Your task to perform on an android device: Turn on the flashlight Image 0: 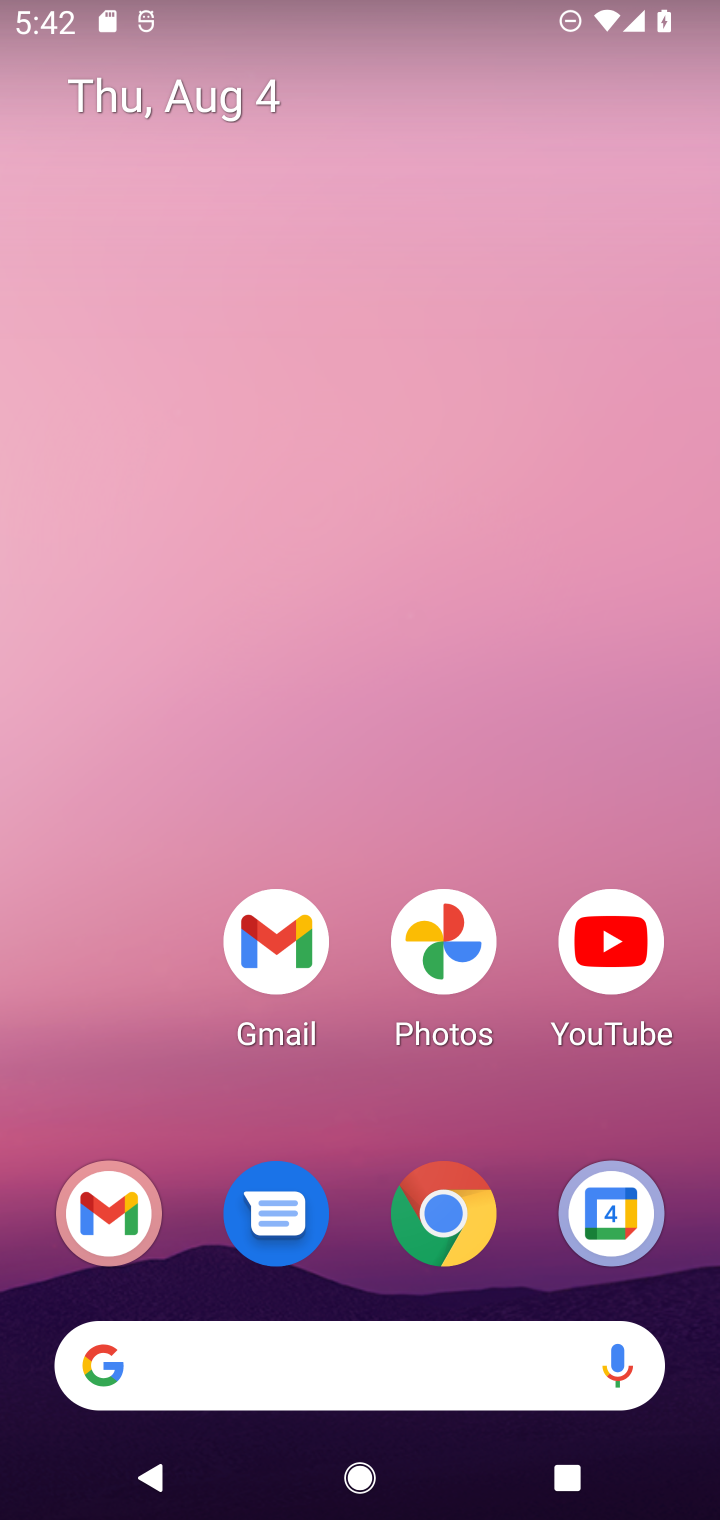
Step 0: drag from (380, 1) to (359, 739)
Your task to perform on an android device: Turn on the flashlight Image 1: 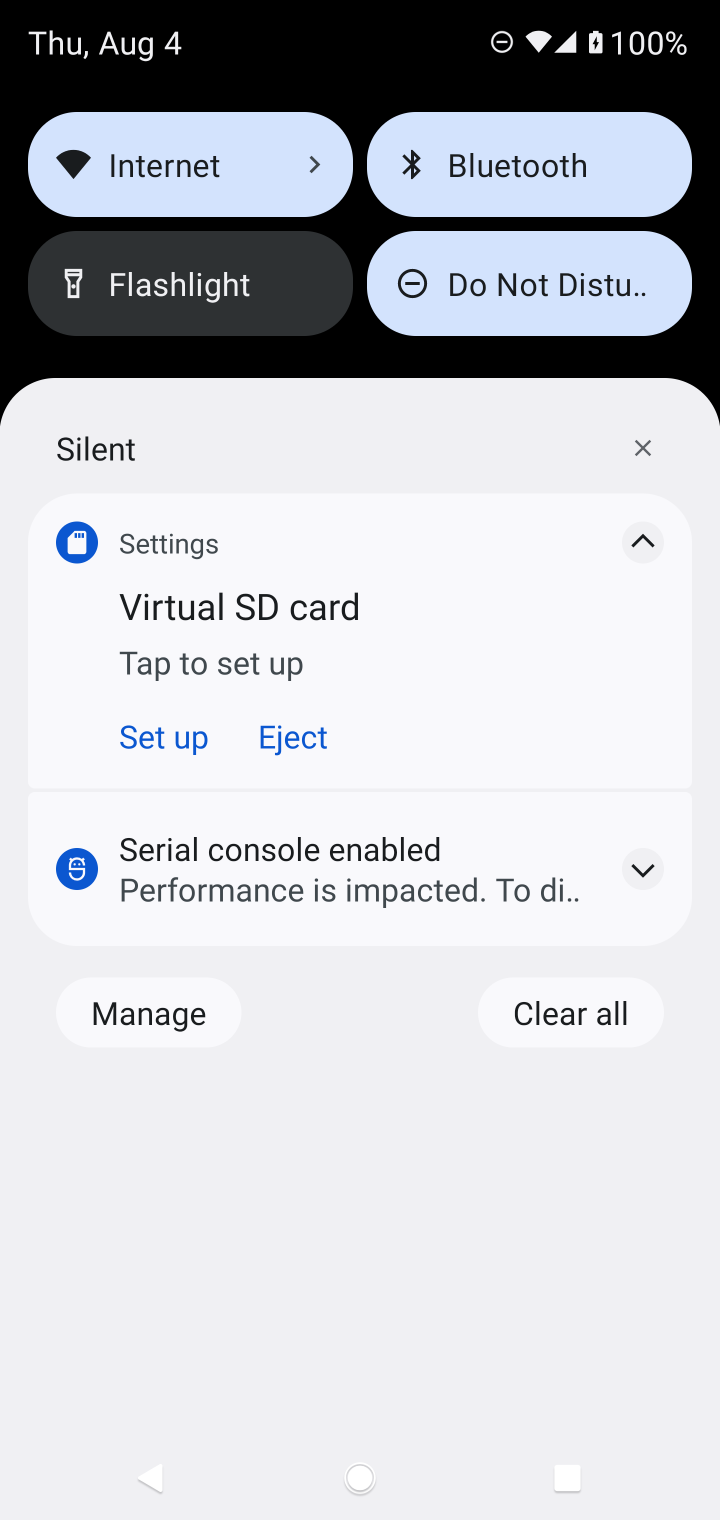
Step 1: task complete